Your task to perform on an android device: change notification settings in the gmail app Image 0: 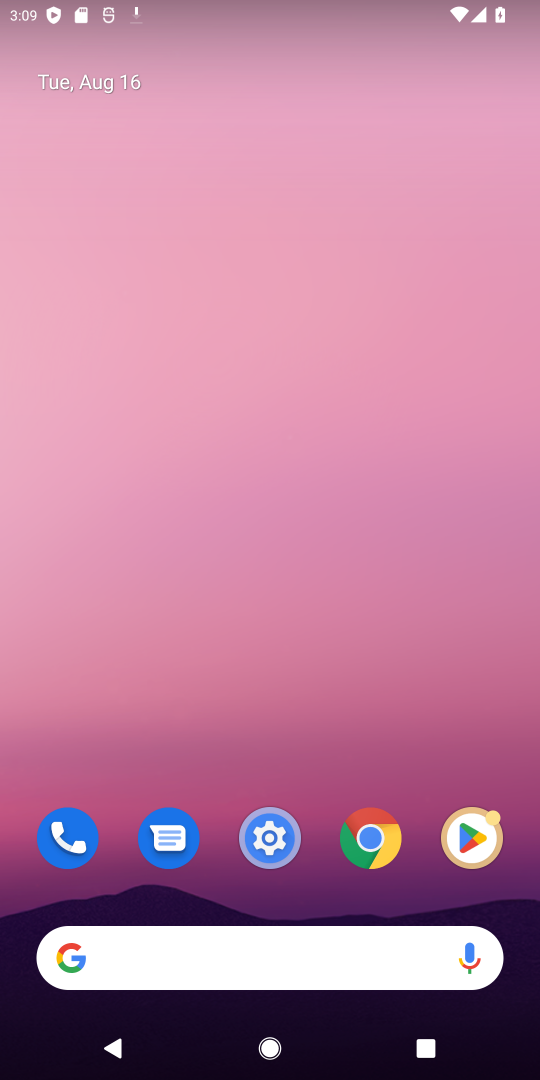
Step 0: drag from (257, 893) to (232, 105)
Your task to perform on an android device: change notification settings in the gmail app Image 1: 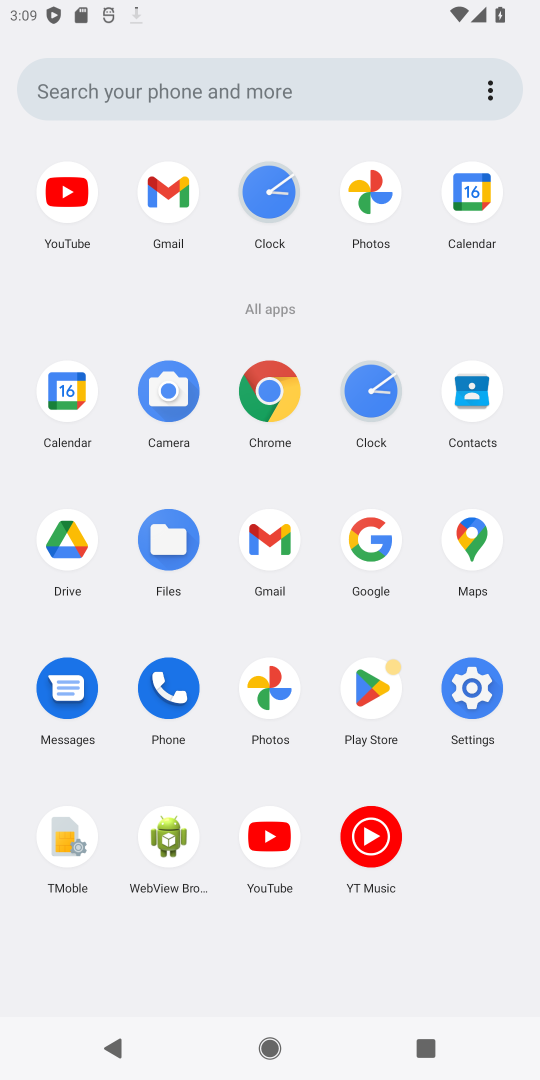
Step 1: click (274, 535)
Your task to perform on an android device: change notification settings in the gmail app Image 2: 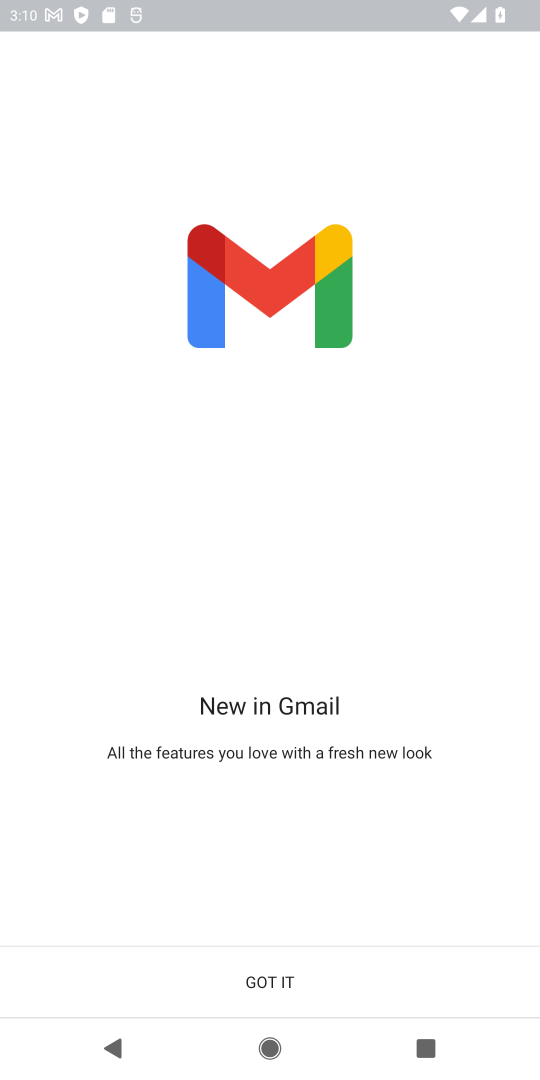
Step 2: click (183, 995)
Your task to perform on an android device: change notification settings in the gmail app Image 3: 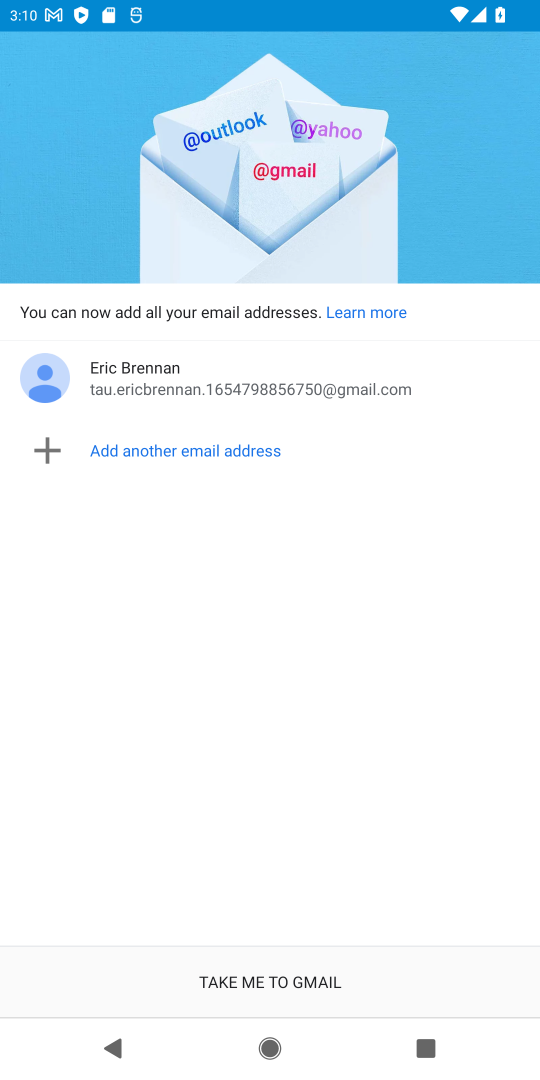
Step 3: click (182, 993)
Your task to perform on an android device: change notification settings in the gmail app Image 4: 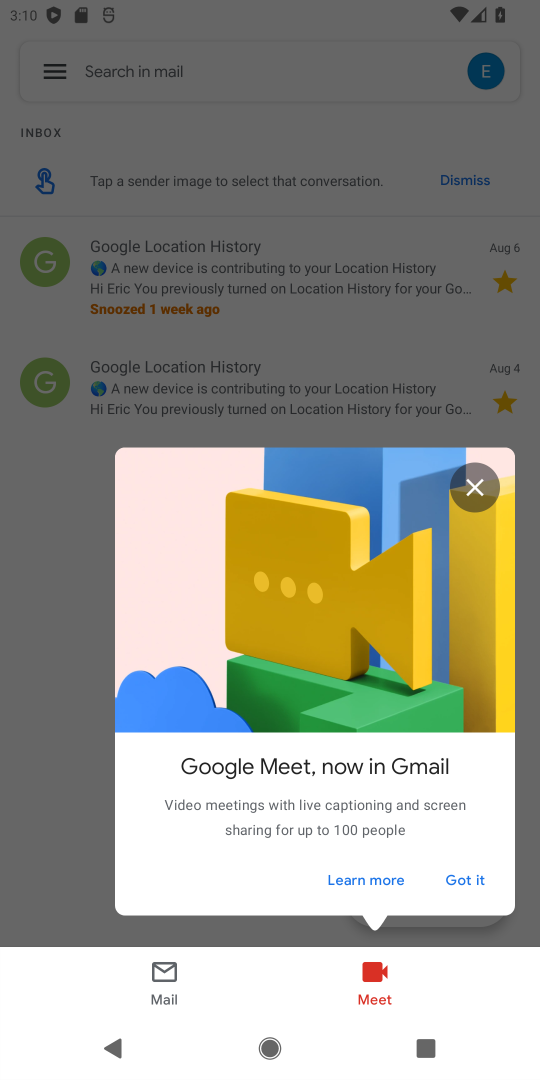
Step 4: click (474, 879)
Your task to perform on an android device: change notification settings in the gmail app Image 5: 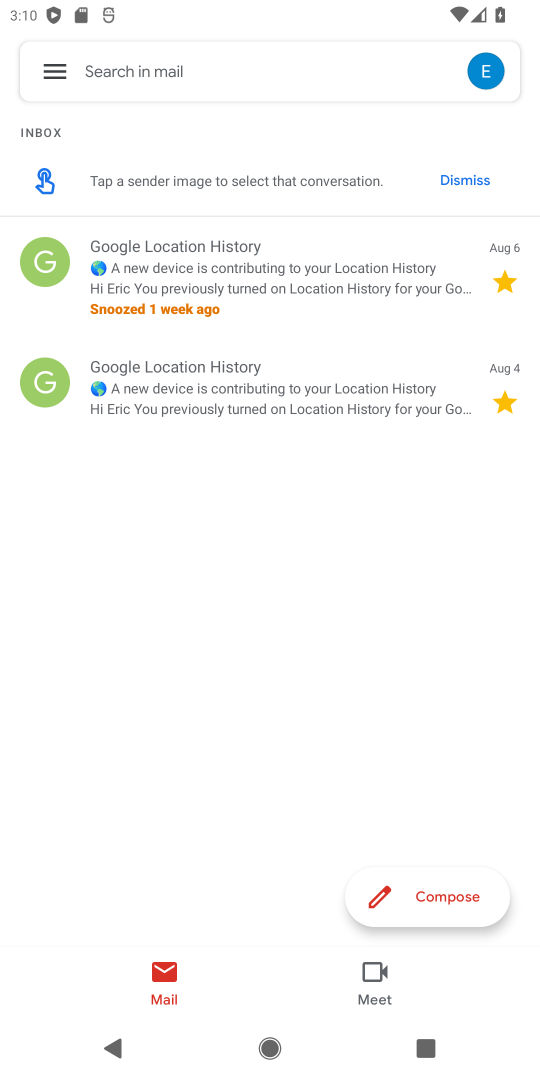
Step 5: click (55, 61)
Your task to perform on an android device: change notification settings in the gmail app Image 6: 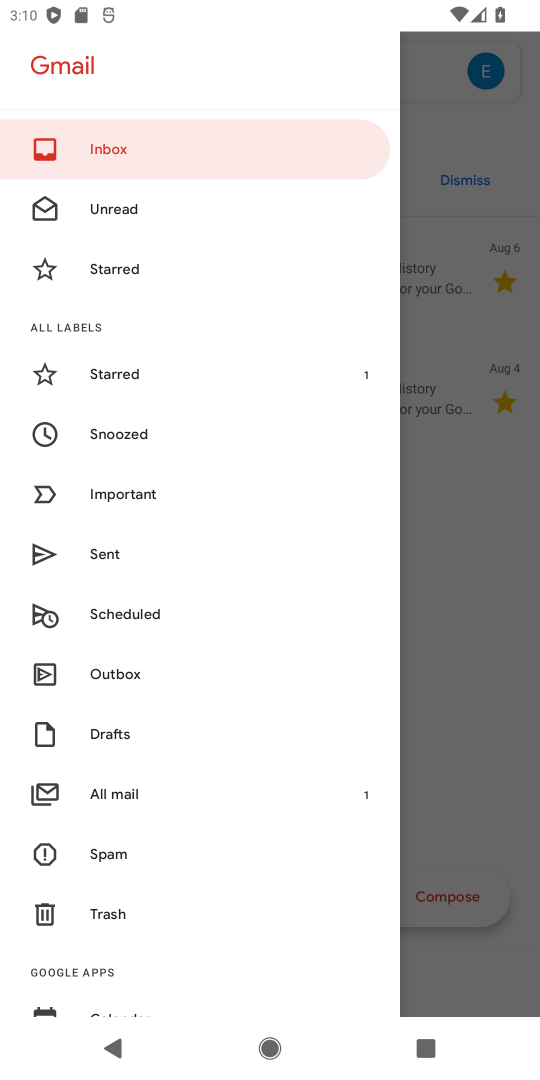
Step 6: drag from (180, 955) to (135, 245)
Your task to perform on an android device: change notification settings in the gmail app Image 7: 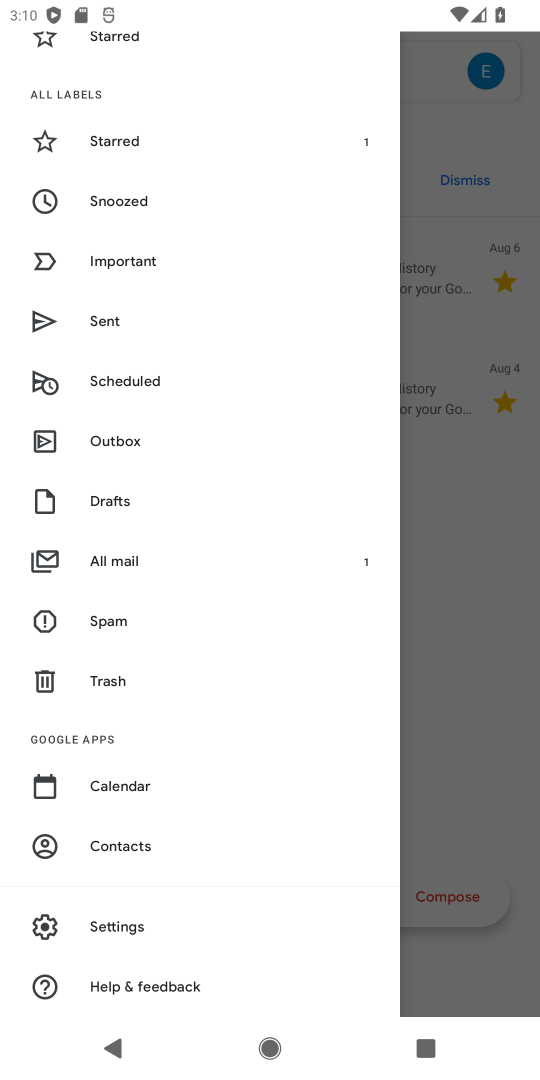
Step 7: click (119, 927)
Your task to perform on an android device: change notification settings in the gmail app Image 8: 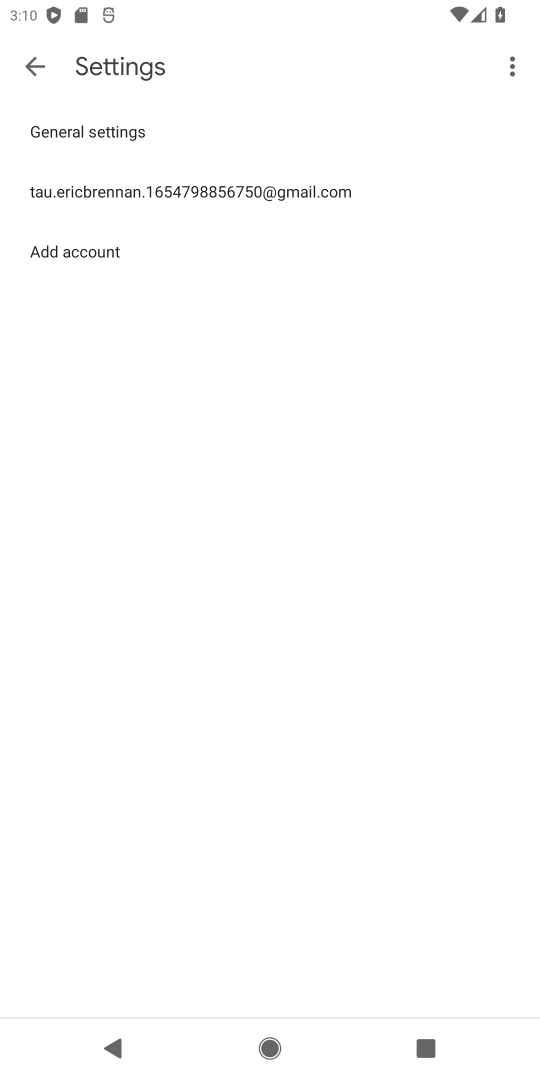
Step 8: click (56, 140)
Your task to perform on an android device: change notification settings in the gmail app Image 9: 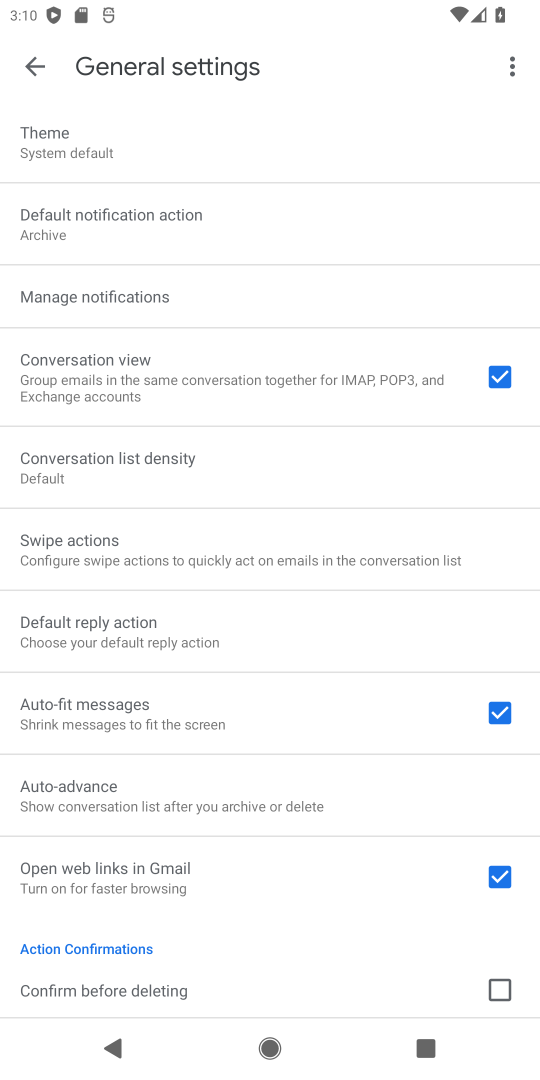
Step 9: click (140, 294)
Your task to perform on an android device: change notification settings in the gmail app Image 10: 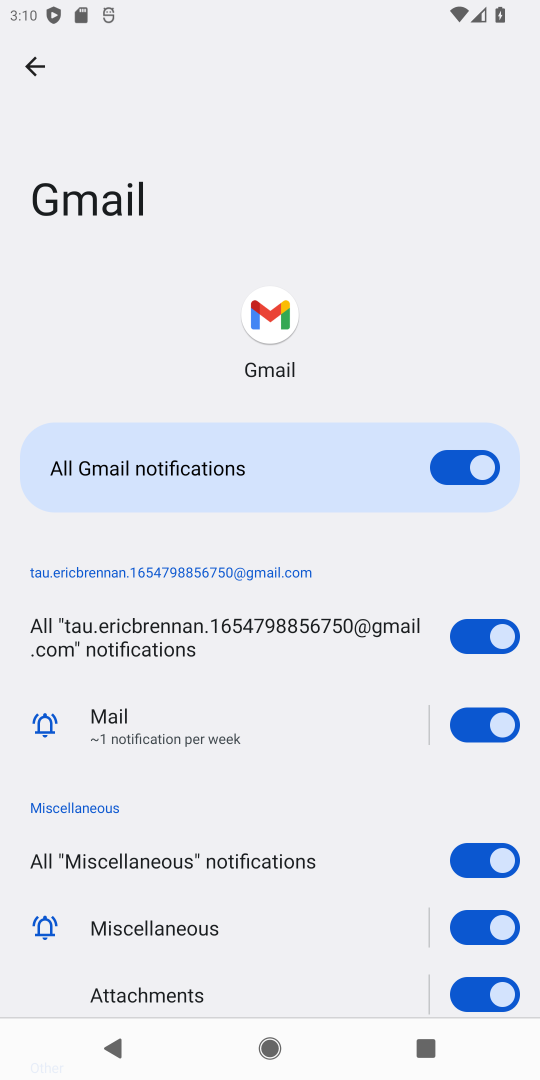
Step 10: click (463, 467)
Your task to perform on an android device: change notification settings in the gmail app Image 11: 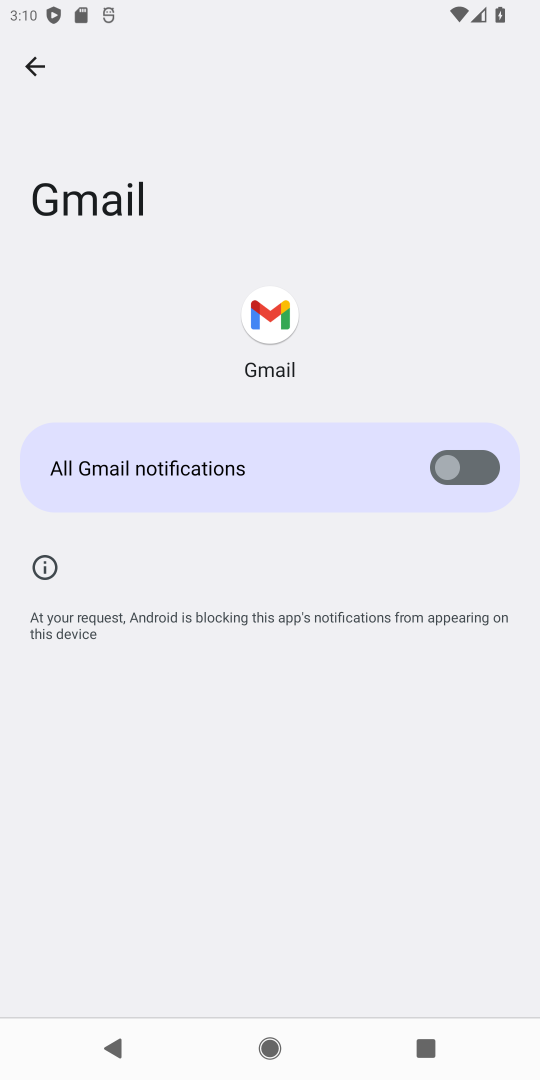
Step 11: task complete